Your task to perform on an android device: all mails in gmail Image 0: 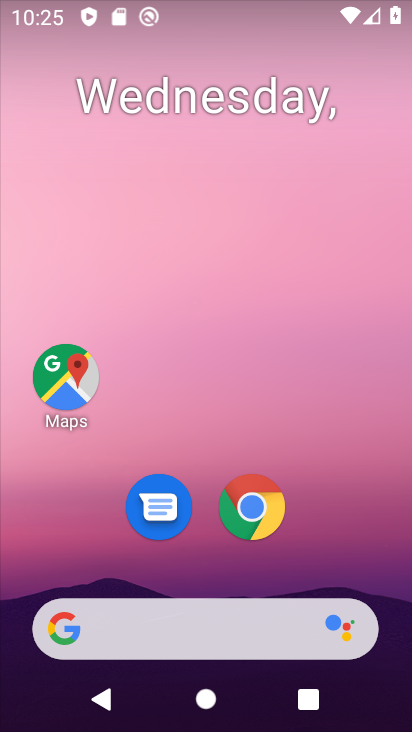
Step 0: drag from (281, 663) to (228, 74)
Your task to perform on an android device: all mails in gmail Image 1: 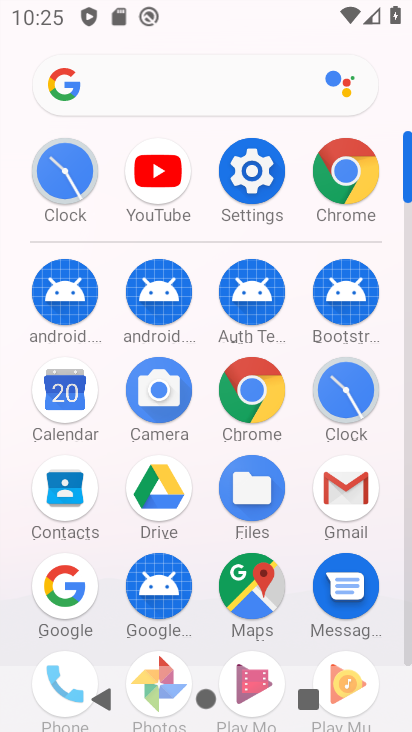
Step 1: drag from (203, 537) to (214, 339)
Your task to perform on an android device: all mails in gmail Image 2: 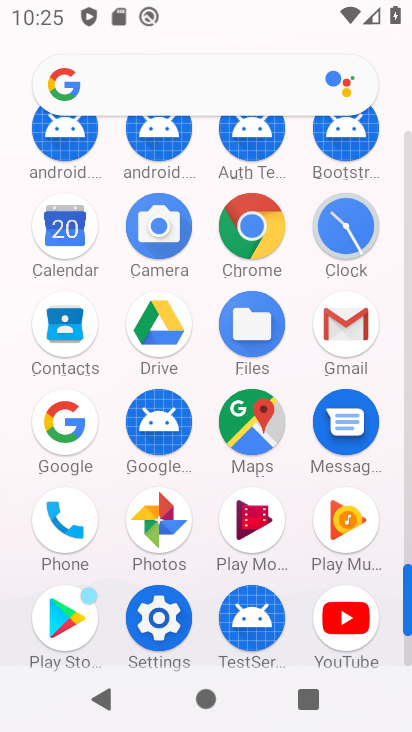
Step 2: click (345, 323)
Your task to perform on an android device: all mails in gmail Image 3: 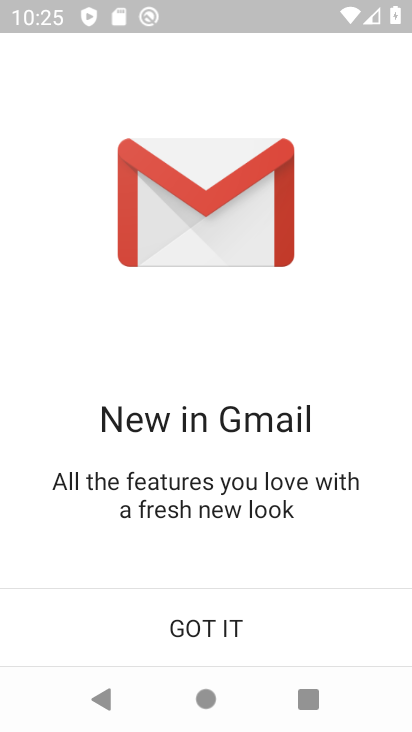
Step 3: click (177, 622)
Your task to perform on an android device: all mails in gmail Image 4: 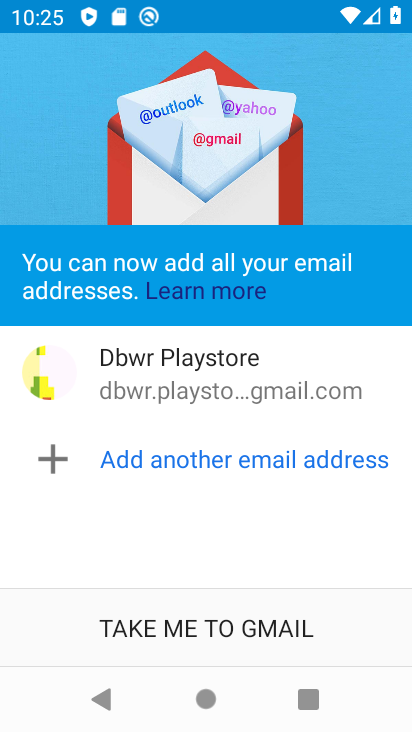
Step 4: click (183, 616)
Your task to perform on an android device: all mails in gmail Image 5: 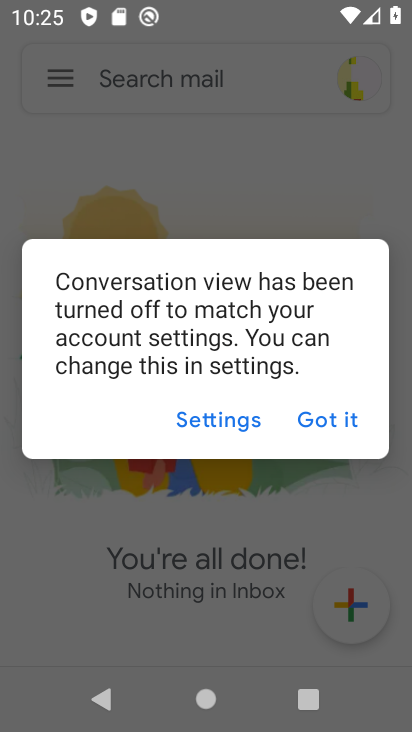
Step 5: click (304, 407)
Your task to perform on an android device: all mails in gmail Image 6: 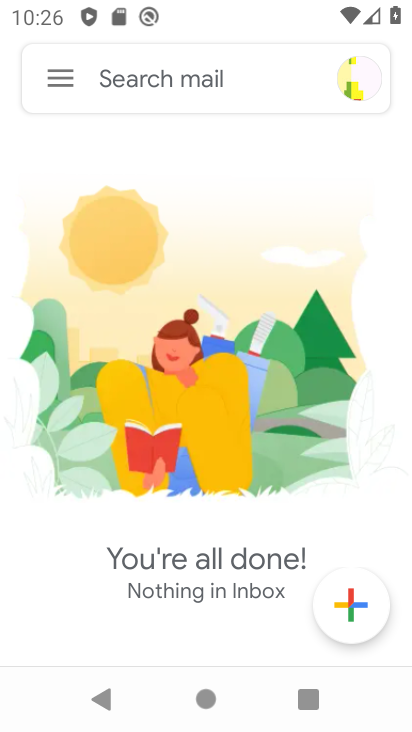
Step 6: click (60, 94)
Your task to perform on an android device: all mails in gmail Image 7: 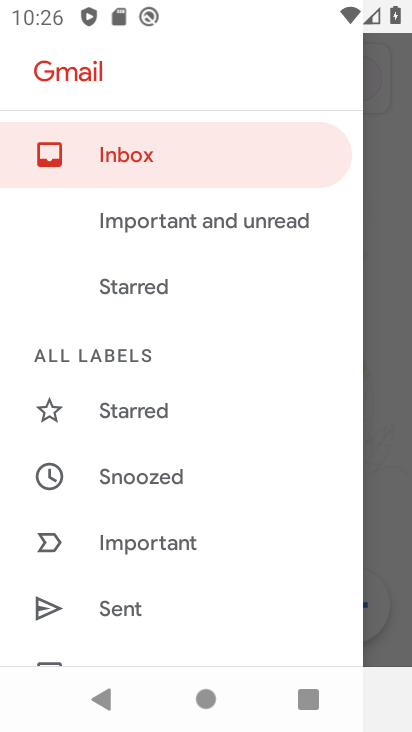
Step 7: drag from (192, 478) to (241, 284)
Your task to perform on an android device: all mails in gmail Image 8: 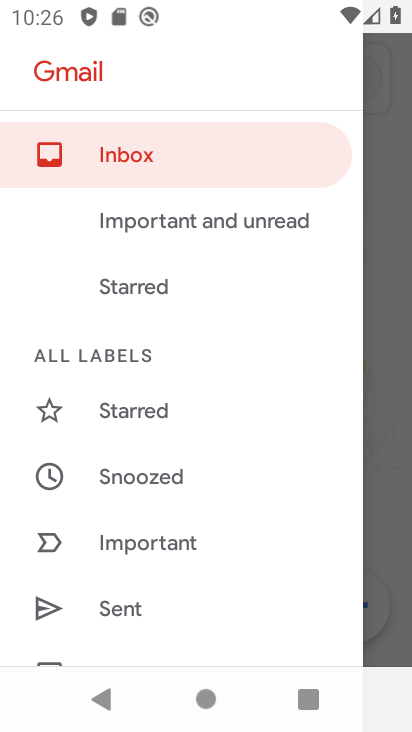
Step 8: drag from (108, 574) to (162, 345)
Your task to perform on an android device: all mails in gmail Image 9: 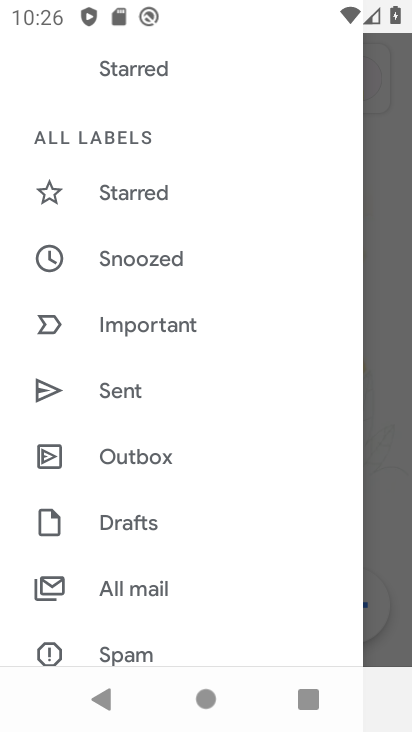
Step 9: click (106, 589)
Your task to perform on an android device: all mails in gmail Image 10: 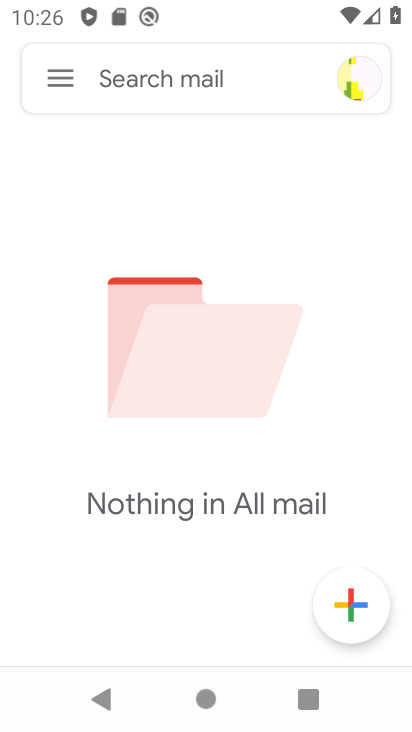
Step 10: task complete